Your task to perform on an android device: What is the recent news? Image 0: 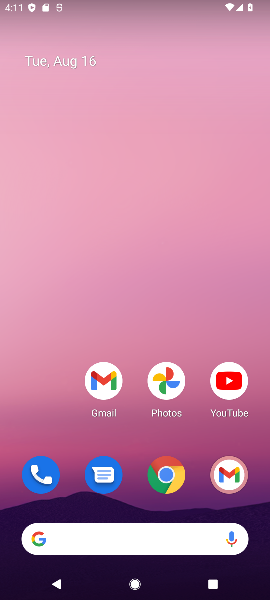
Step 0: drag from (209, 447) to (114, 2)
Your task to perform on an android device: What is the recent news? Image 1: 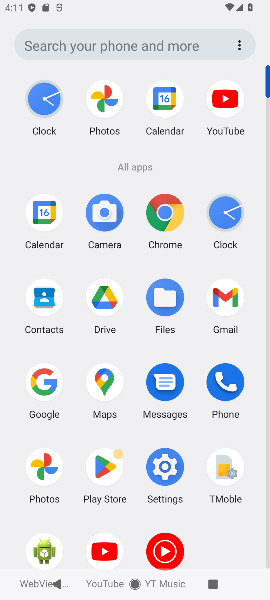
Step 1: click (52, 389)
Your task to perform on an android device: What is the recent news? Image 2: 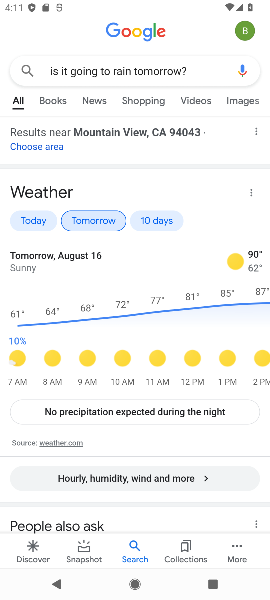
Step 2: press back button
Your task to perform on an android device: What is the recent news? Image 3: 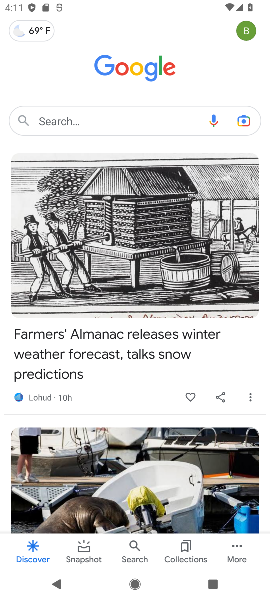
Step 3: click (73, 115)
Your task to perform on an android device: What is the recent news? Image 4: 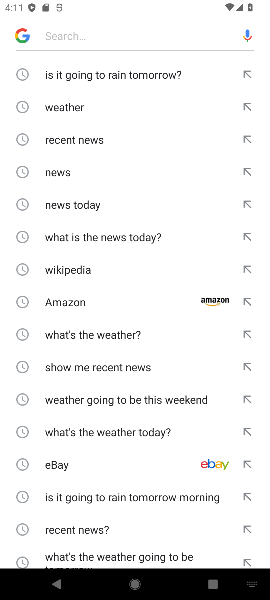
Step 4: click (104, 157)
Your task to perform on an android device: What is the recent news? Image 5: 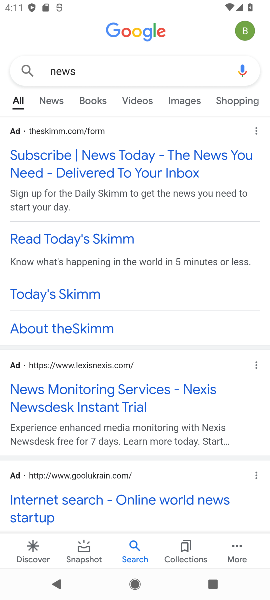
Step 5: task complete